Your task to perform on an android device: What's on the menu at Chick-fil-A? Image 0: 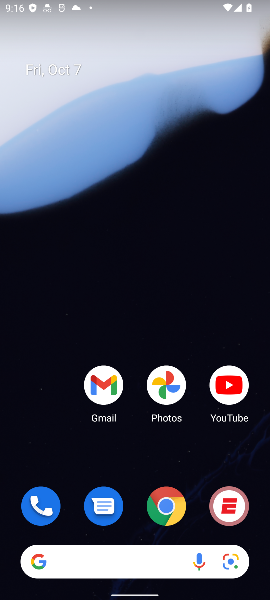
Step 0: click (163, 510)
Your task to perform on an android device: What's on the menu at Chick-fil-A? Image 1: 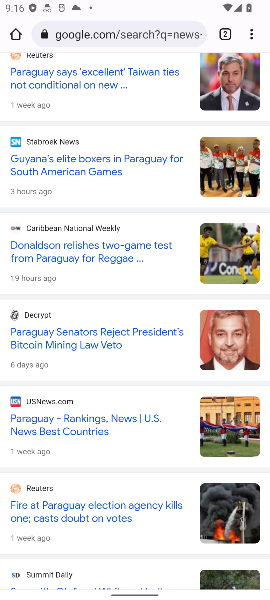
Step 1: click (120, 28)
Your task to perform on an android device: What's on the menu at Chick-fil-A? Image 2: 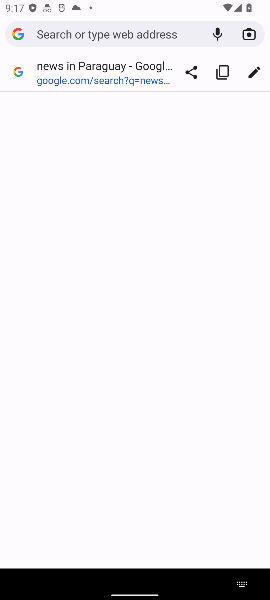
Step 2: type "menu at Chick-fil-A"
Your task to perform on an android device: What's on the menu at Chick-fil-A? Image 3: 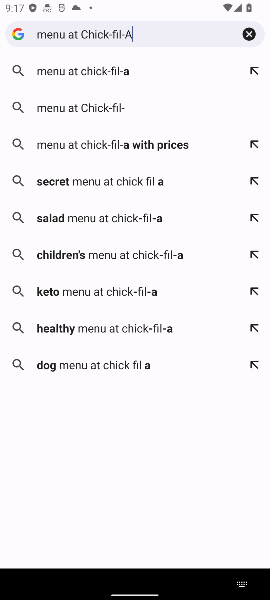
Step 3: press enter
Your task to perform on an android device: What's on the menu at Chick-fil-A? Image 4: 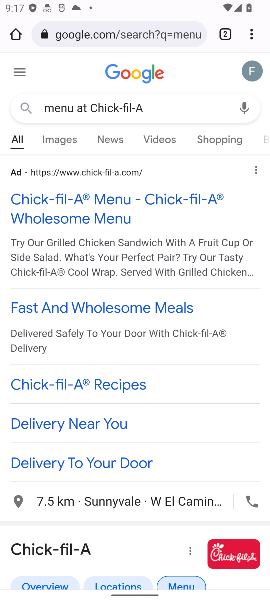
Step 4: drag from (102, 468) to (150, 179)
Your task to perform on an android device: What's on the menu at Chick-fil-A? Image 5: 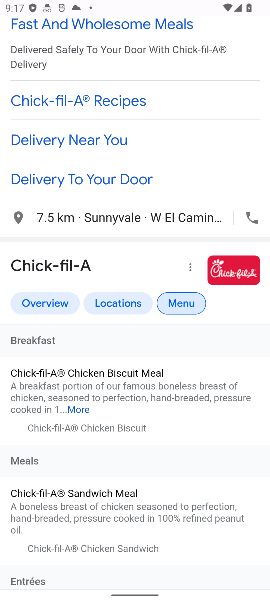
Step 5: drag from (157, 530) to (159, 229)
Your task to perform on an android device: What's on the menu at Chick-fil-A? Image 6: 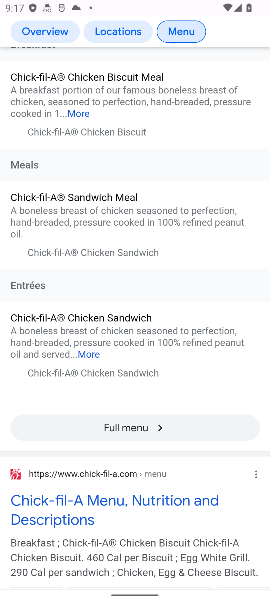
Step 6: click (136, 429)
Your task to perform on an android device: What's on the menu at Chick-fil-A? Image 7: 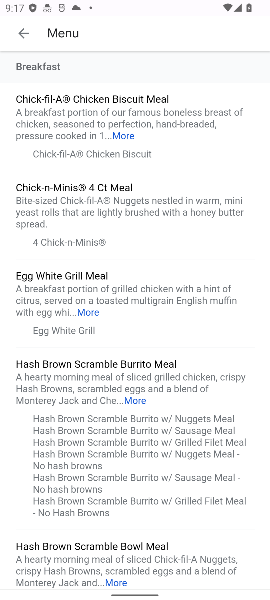
Step 7: task complete